Your task to perform on an android device: Go to Google maps Image 0: 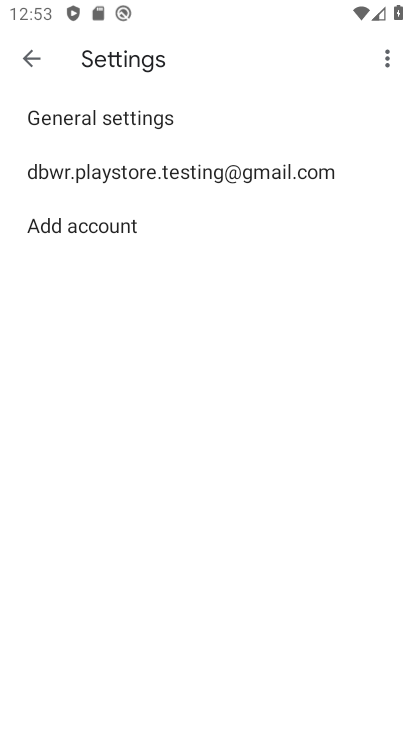
Step 0: press back button
Your task to perform on an android device: Go to Google maps Image 1: 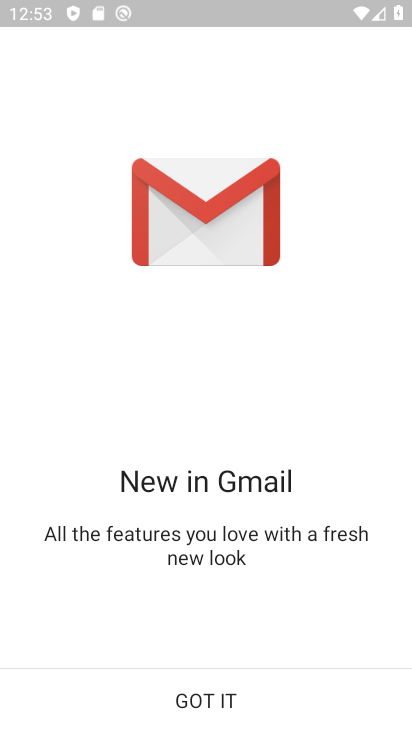
Step 1: press back button
Your task to perform on an android device: Go to Google maps Image 2: 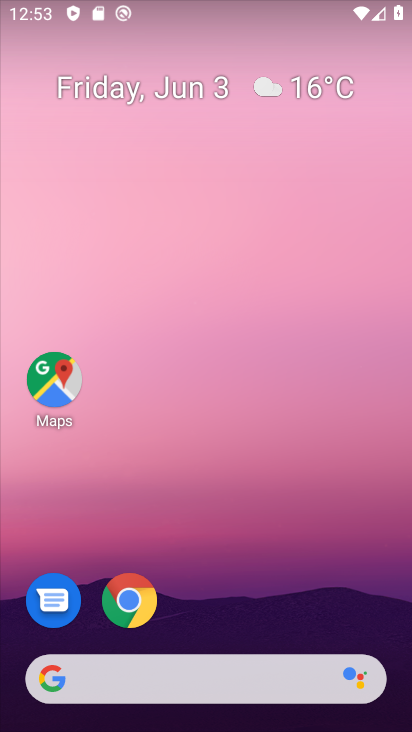
Step 2: drag from (236, 598) to (243, 24)
Your task to perform on an android device: Go to Google maps Image 3: 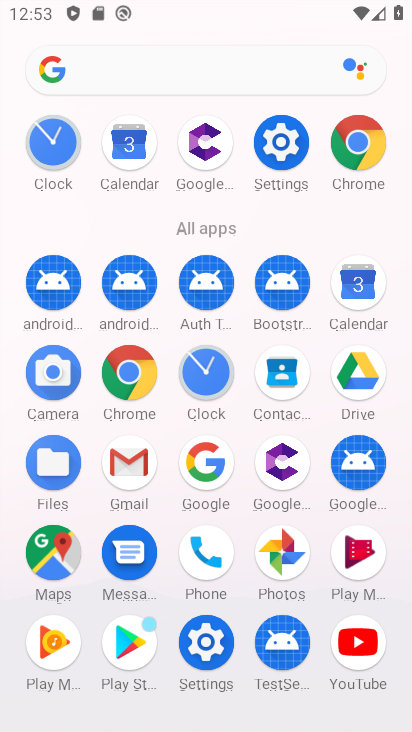
Step 3: click (44, 555)
Your task to perform on an android device: Go to Google maps Image 4: 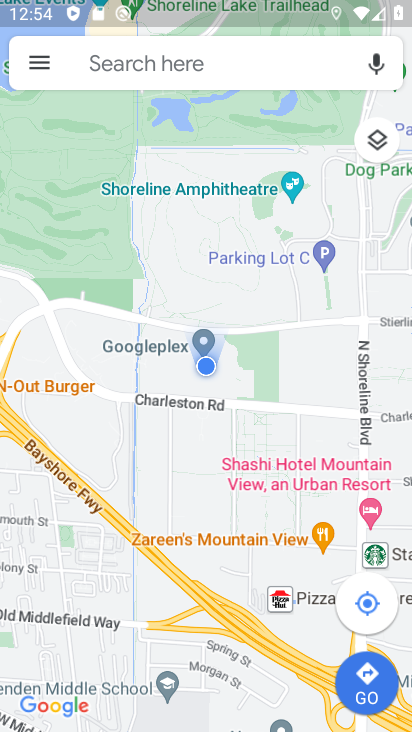
Step 4: task complete